Your task to perform on an android device: install app "Skype" Image 0: 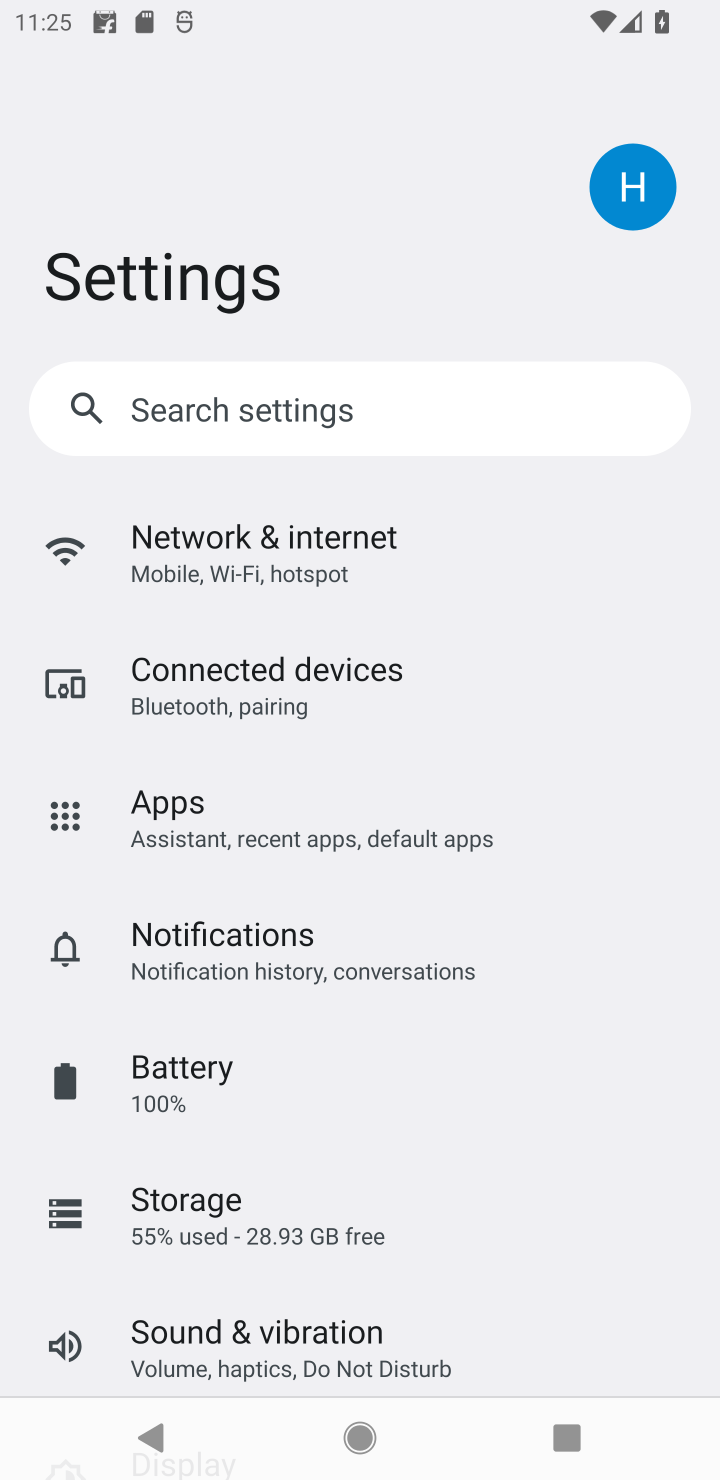
Step 0: press home button
Your task to perform on an android device: install app "Skype" Image 1: 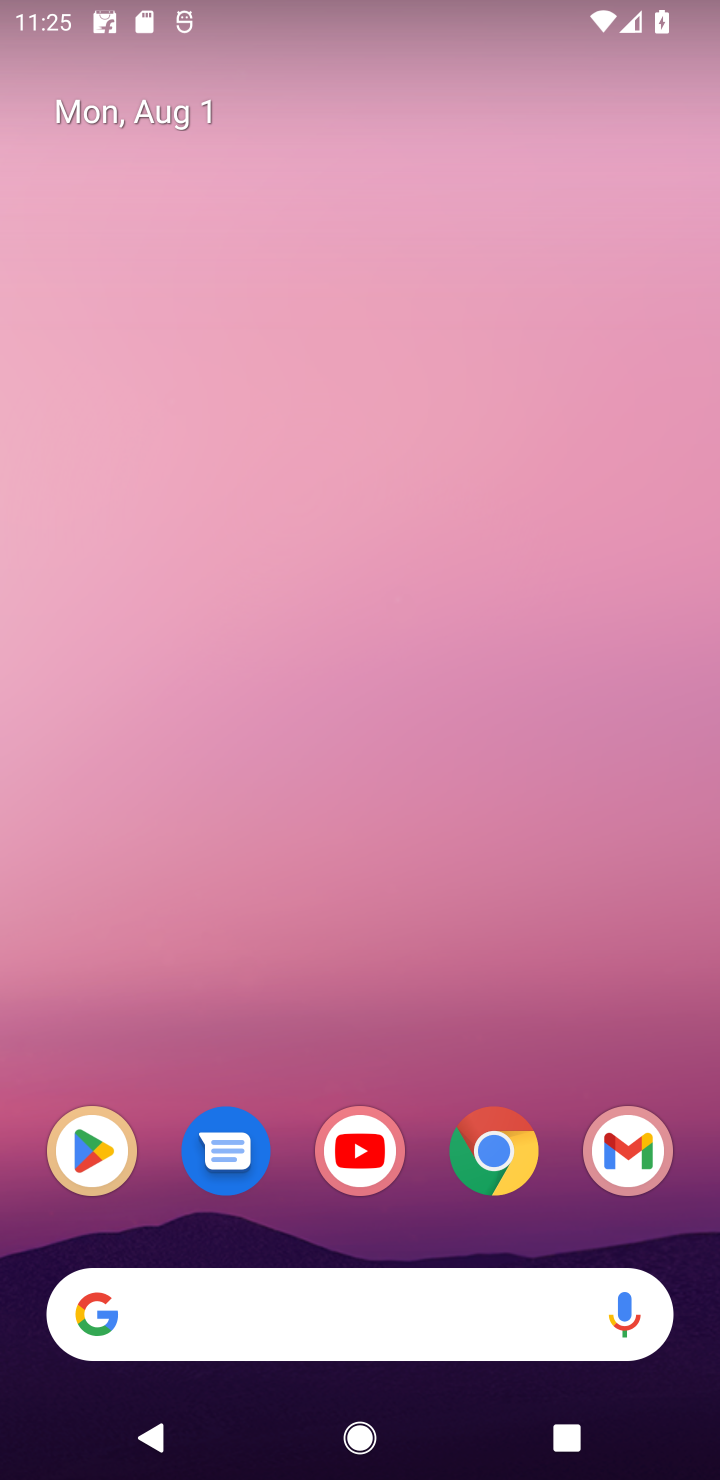
Step 1: click (79, 1151)
Your task to perform on an android device: install app "Skype" Image 2: 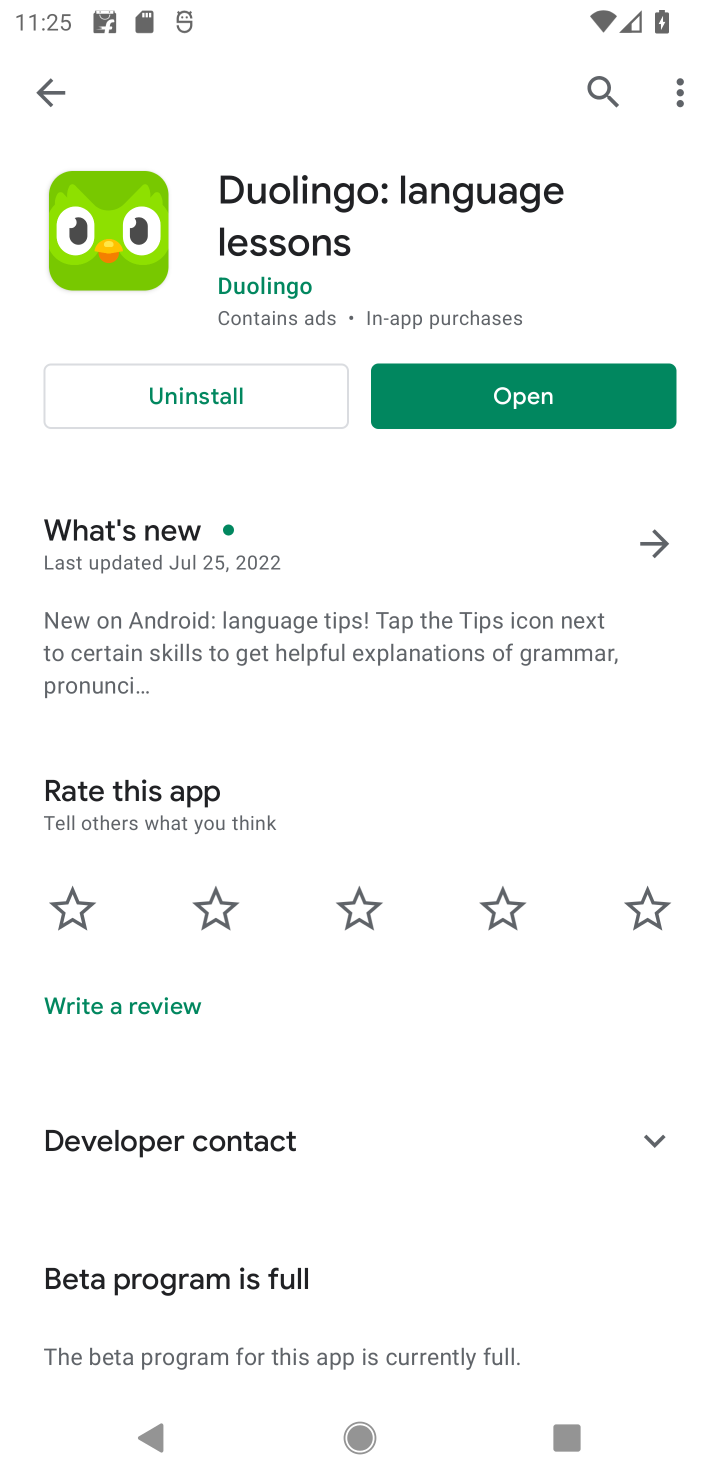
Step 2: click (608, 80)
Your task to perform on an android device: install app "Skype" Image 3: 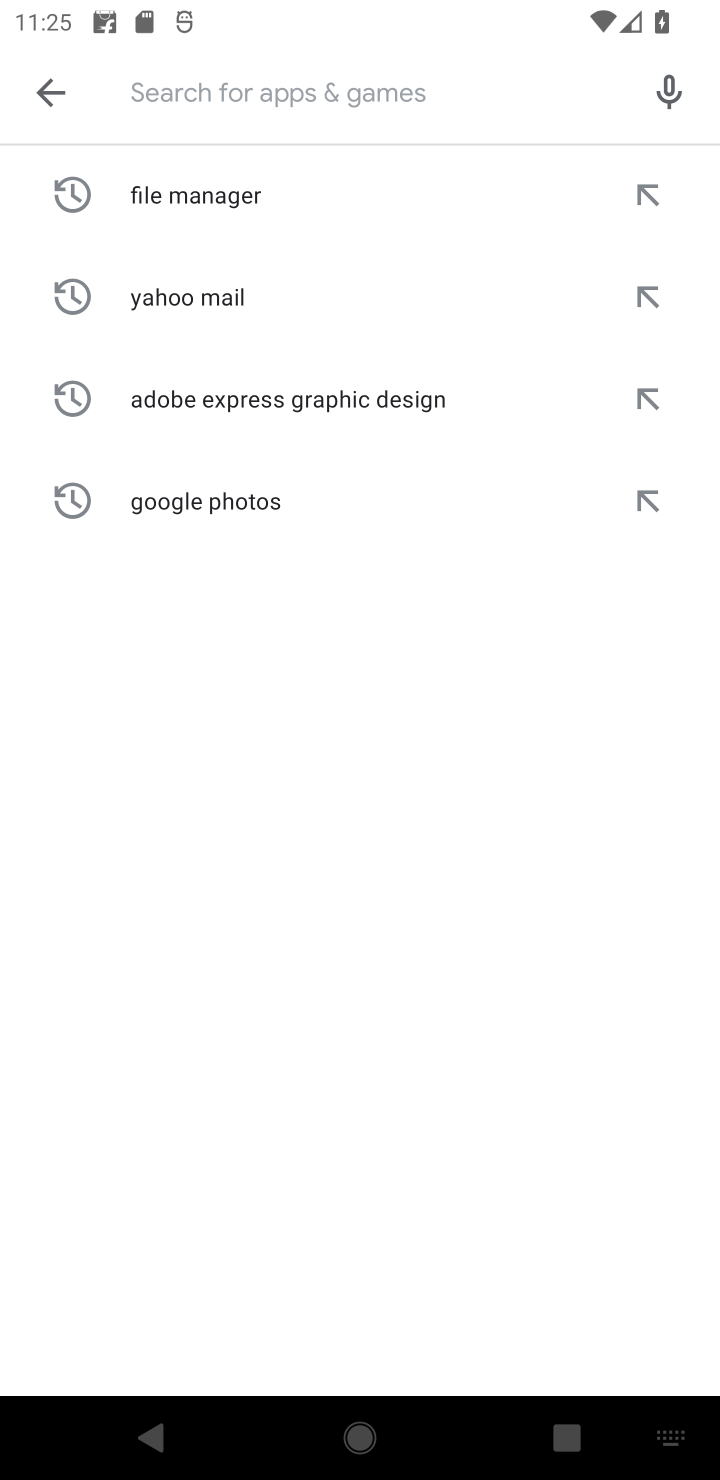
Step 3: type "Skype"
Your task to perform on an android device: install app "Skype" Image 4: 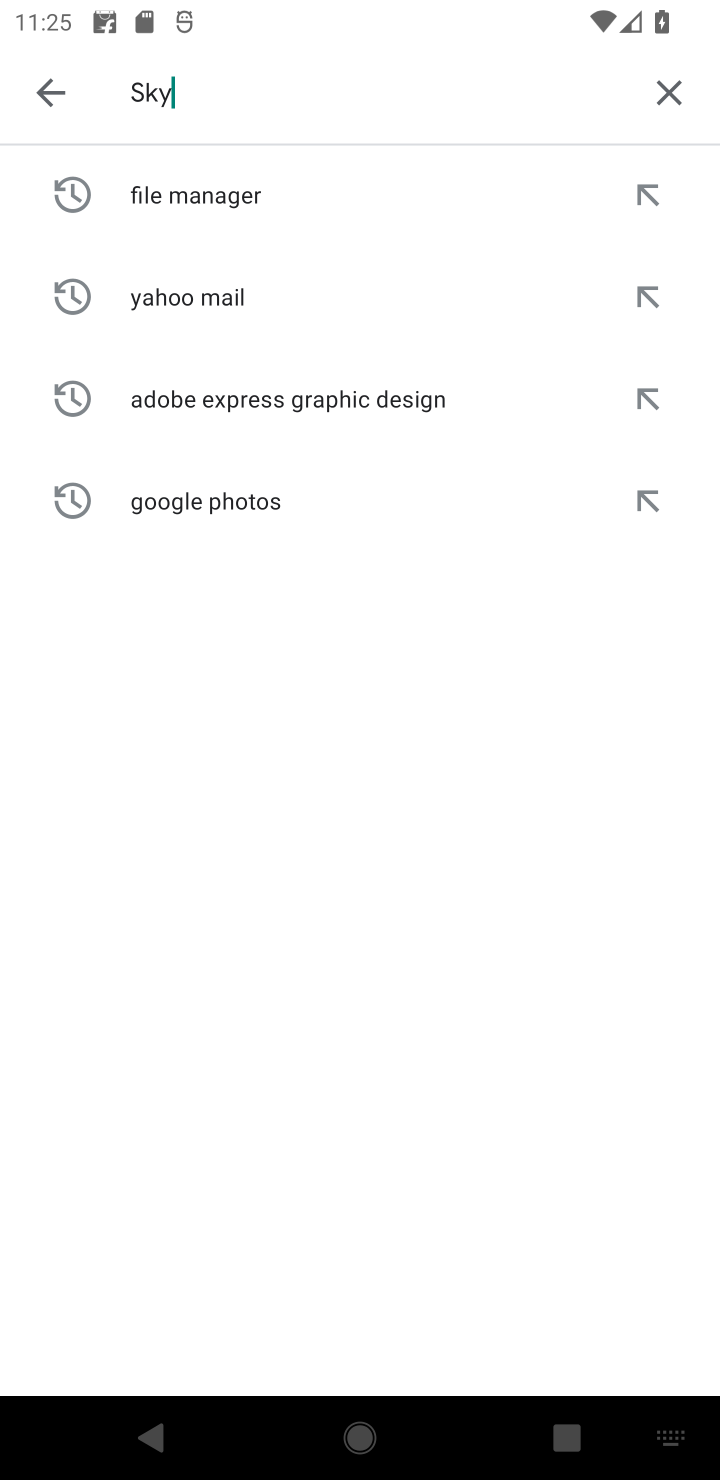
Step 4: type ""
Your task to perform on an android device: install app "Skype" Image 5: 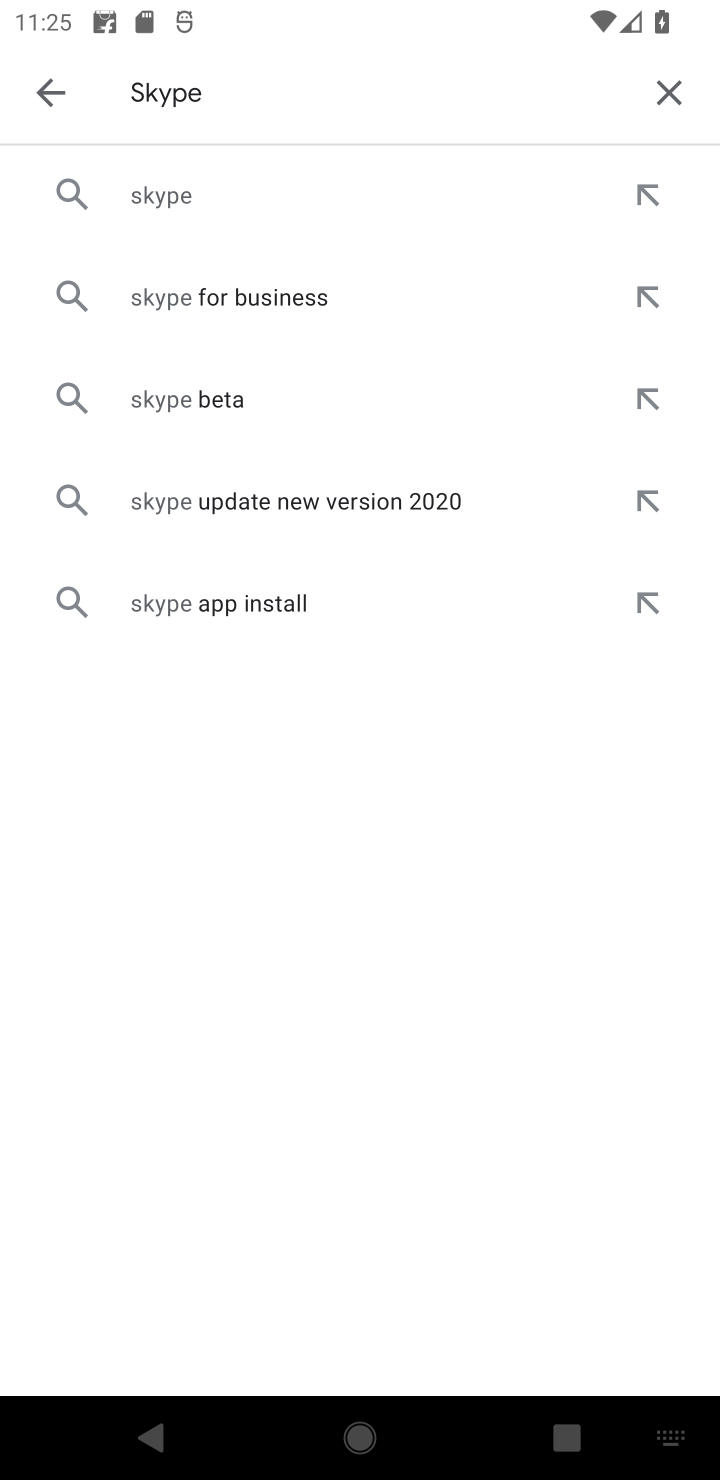
Step 5: click (320, 185)
Your task to perform on an android device: install app "Skype" Image 6: 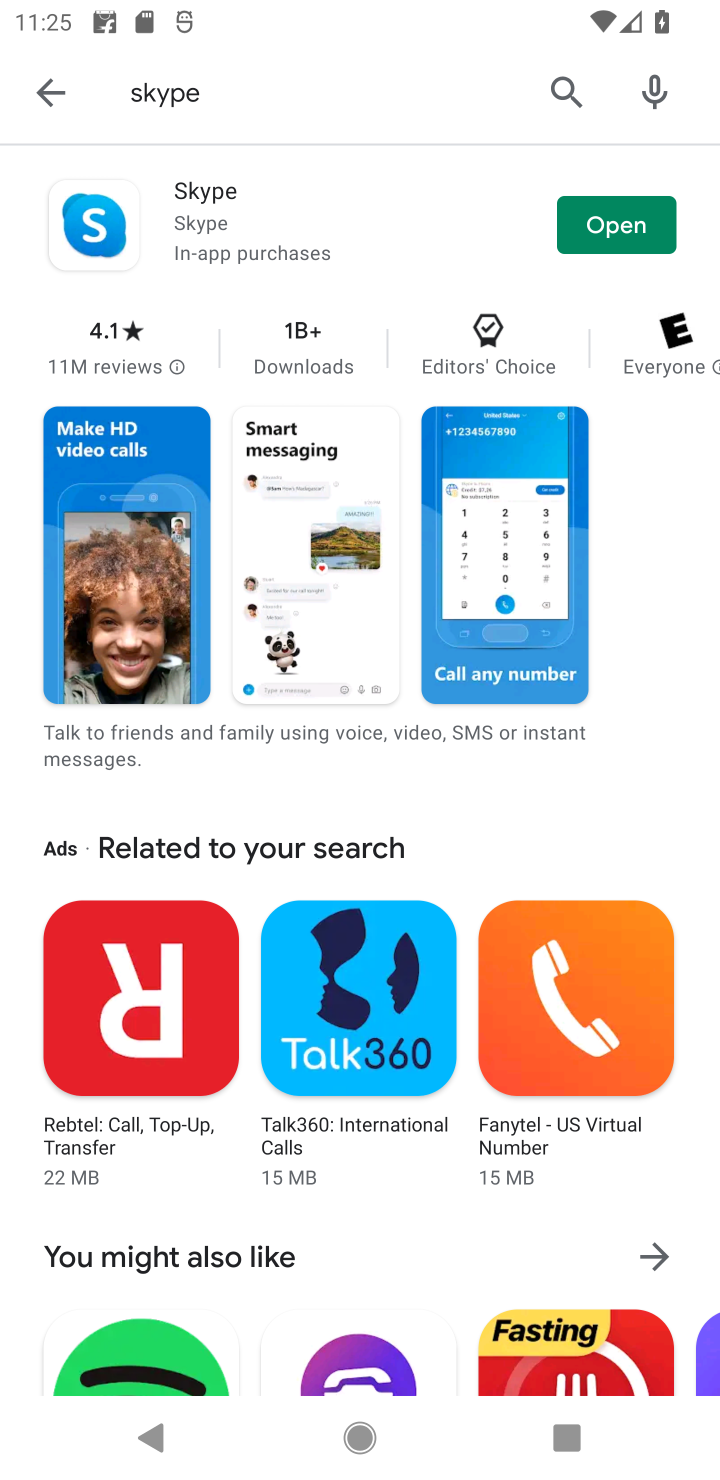
Step 6: task complete